Your task to perform on an android device: Open Reddit.com Image 0: 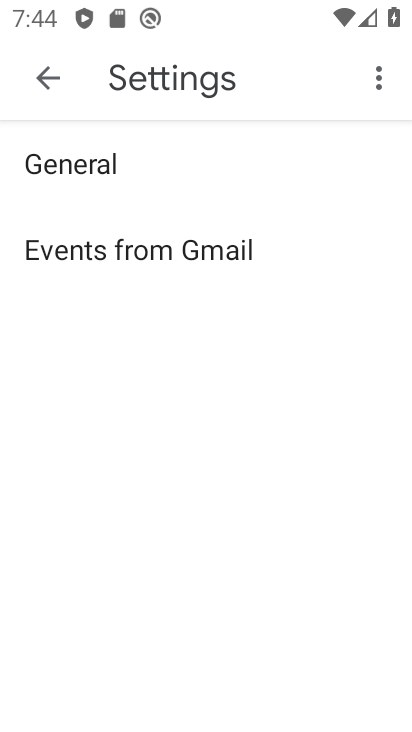
Step 0: press home button
Your task to perform on an android device: Open Reddit.com Image 1: 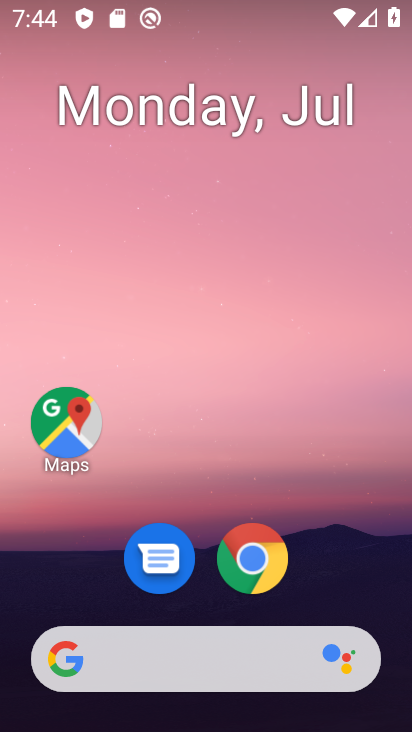
Step 1: drag from (248, 644) to (253, 14)
Your task to perform on an android device: Open Reddit.com Image 2: 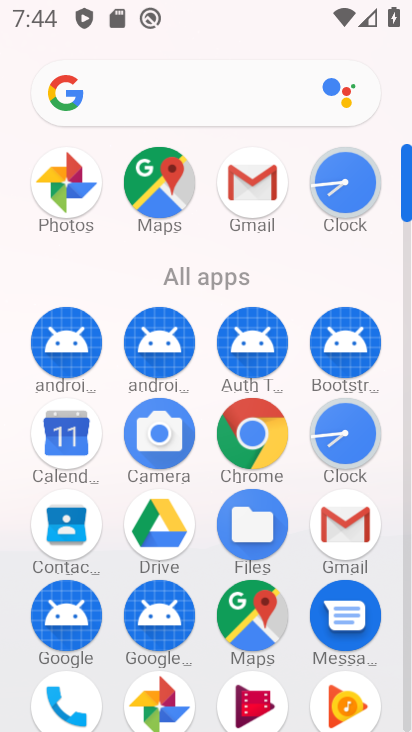
Step 2: click (278, 441)
Your task to perform on an android device: Open Reddit.com Image 3: 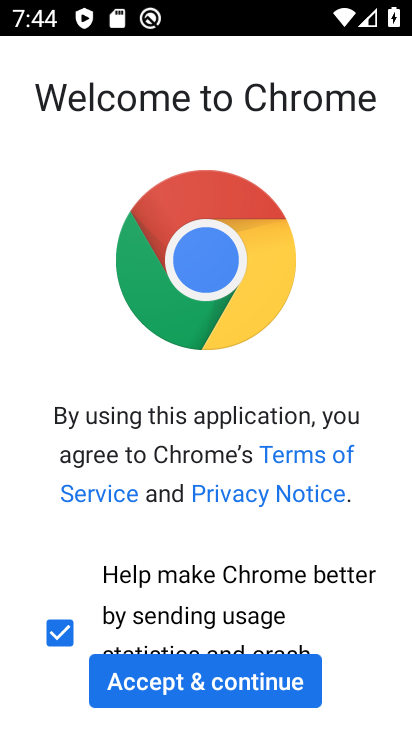
Step 3: click (263, 671)
Your task to perform on an android device: Open Reddit.com Image 4: 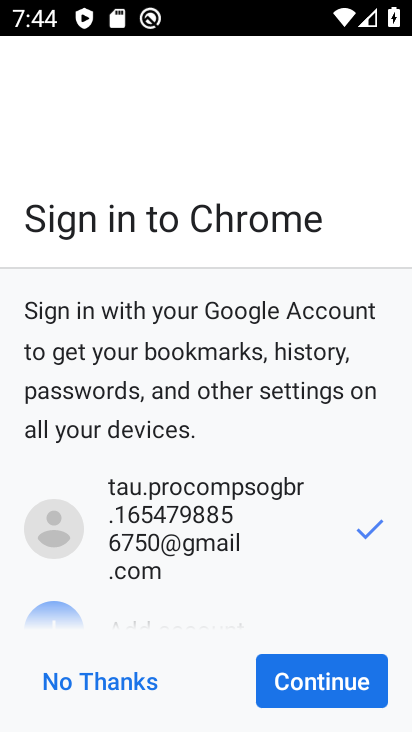
Step 4: click (319, 671)
Your task to perform on an android device: Open Reddit.com Image 5: 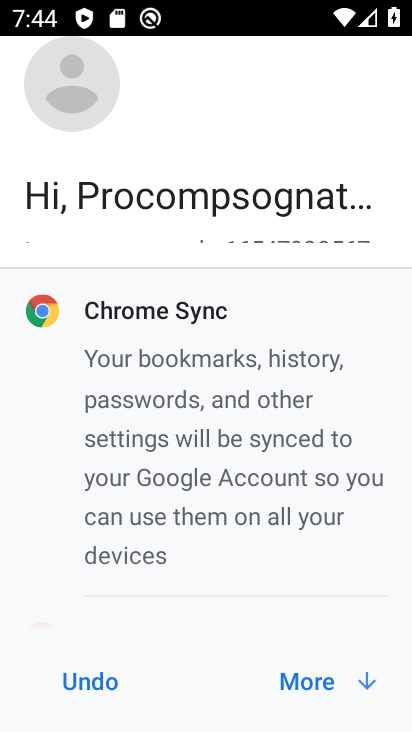
Step 5: click (307, 690)
Your task to perform on an android device: Open Reddit.com Image 6: 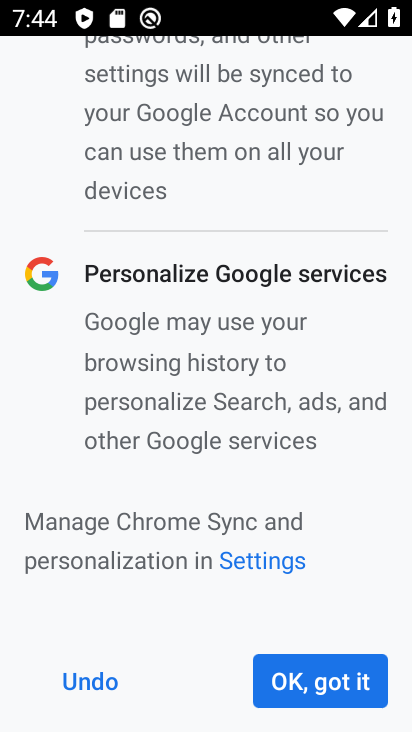
Step 6: click (307, 687)
Your task to perform on an android device: Open Reddit.com Image 7: 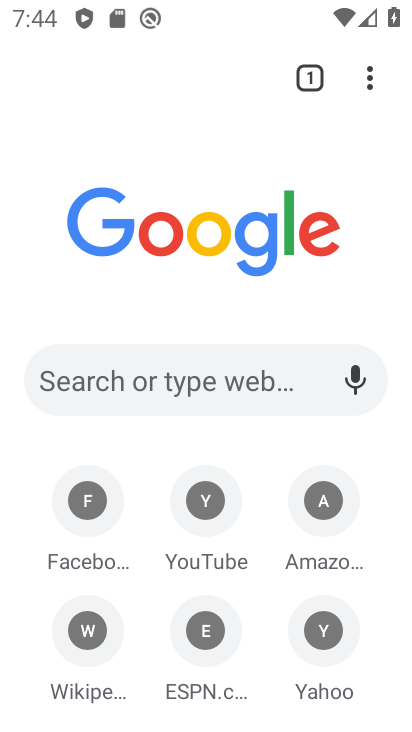
Step 7: click (194, 373)
Your task to perform on an android device: Open Reddit.com Image 8: 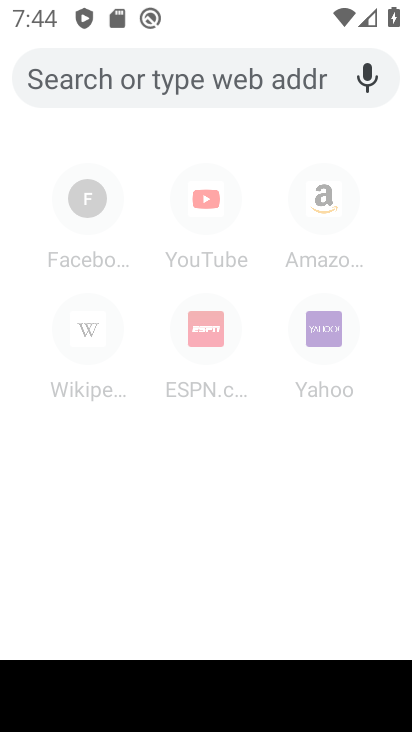
Step 8: type "reddit.com"
Your task to perform on an android device: Open Reddit.com Image 9: 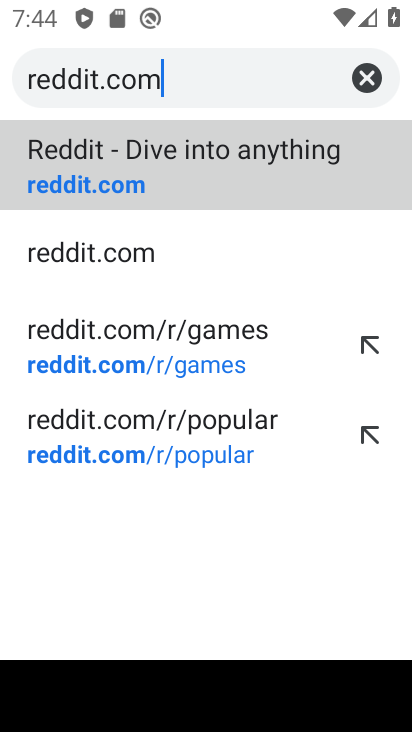
Step 9: type ""
Your task to perform on an android device: Open Reddit.com Image 10: 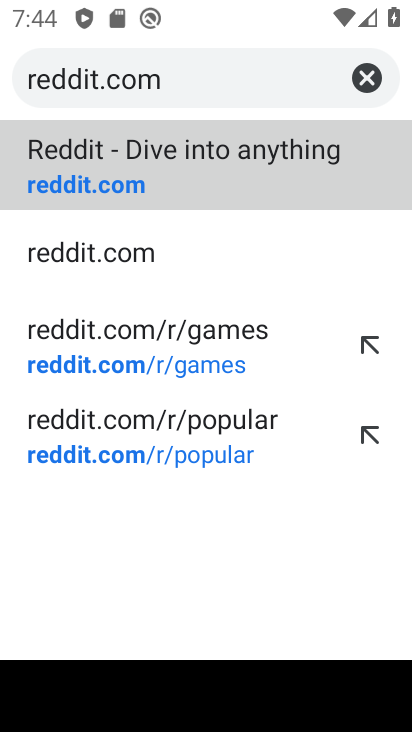
Step 10: click (178, 179)
Your task to perform on an android device: Open Reddit.com Image 11: 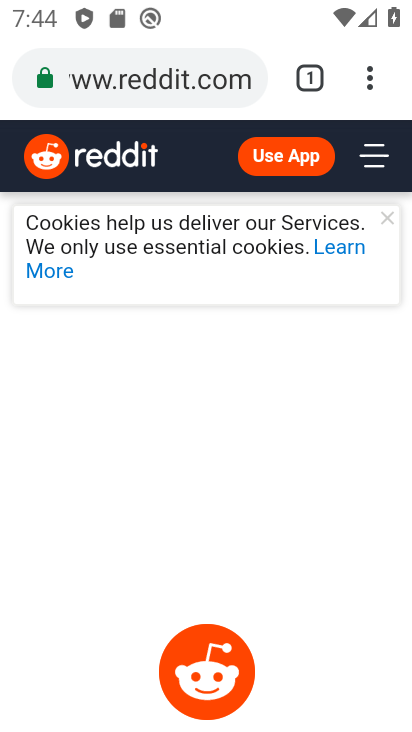
Step 11: task complete